Your task to perform on an android device: Open the stopwatch Image 0: 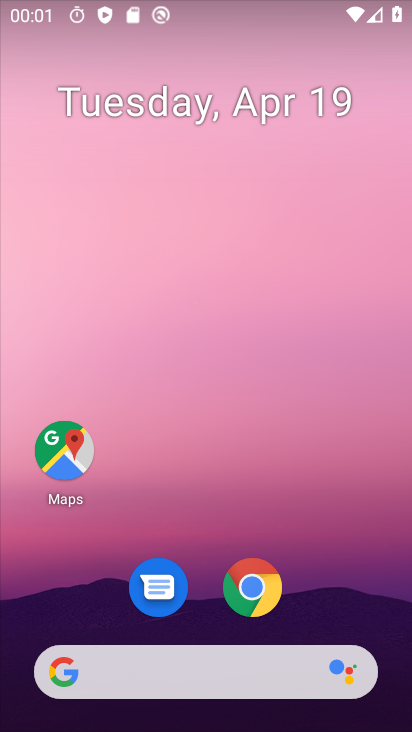
Step 0: drag from (361, 598) to (356, 122)
Your task to perform on an android device: Open the stopwatch Image 1: 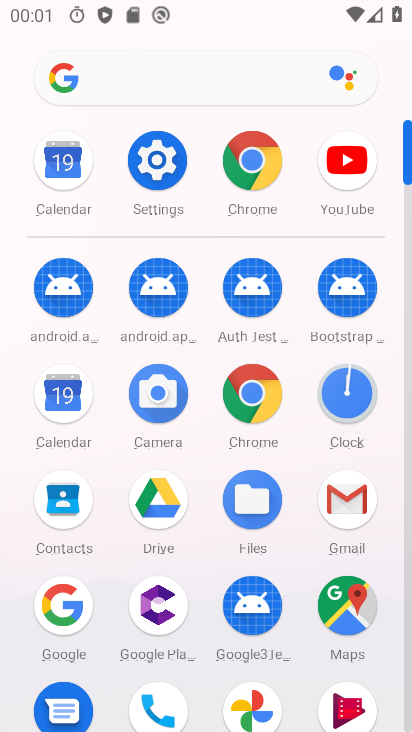
Step 1: click (347, 395)
Your task to perform on an android device: Open the stopwatch Image 2: 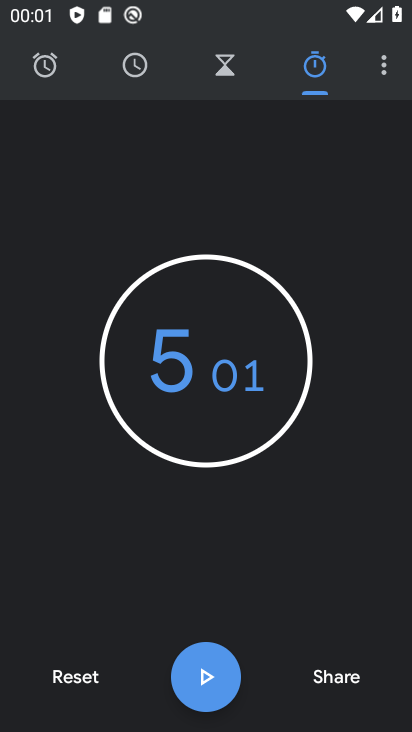
Step 2: click (63, 682)
Your task to perform on an android device: Open the stopwatch Image 3: 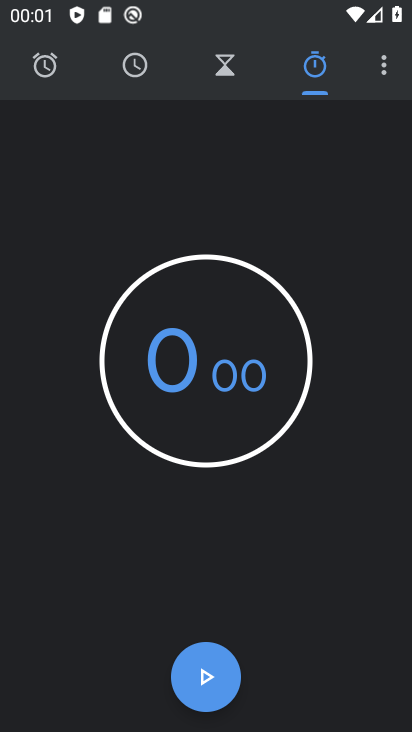
Step 3: click (184, 686)
Your task to perform on an android device: Open the stopwatch Image 4: 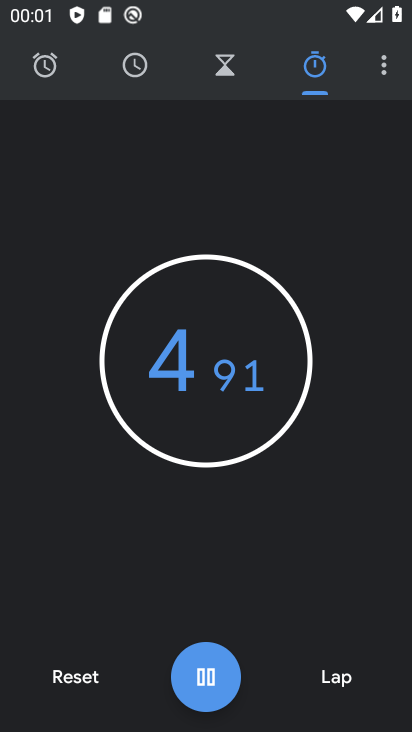
Step 4: click (210, 674)
Your task to perform on an android device: Open the stopwatch Image 5: 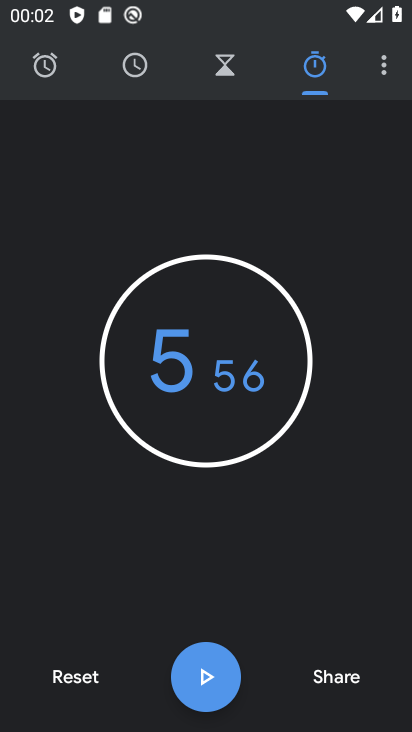
Step 5: task complete